Your task to perform on an android device: Open Google Image 0: 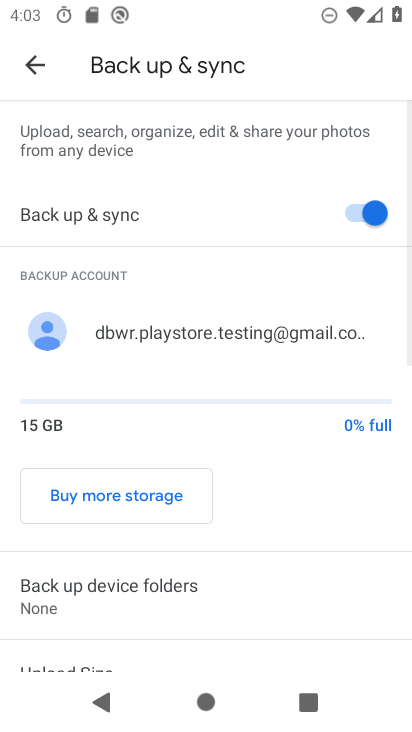
Step 0: press home button
Your task to perform on an android device: Open Google Image 1: 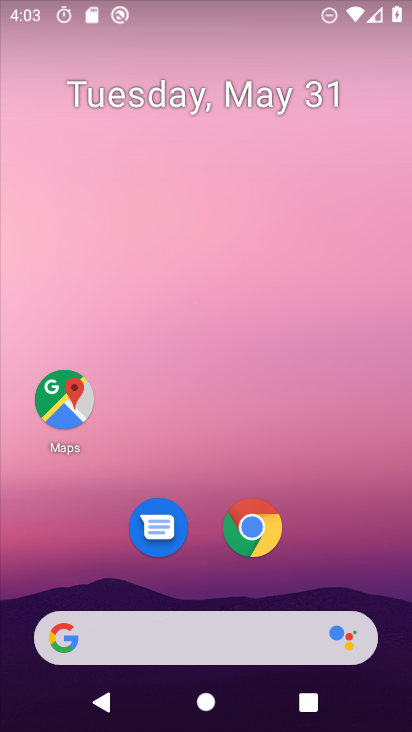
Step 1: click (204, 630)
Your task to perform on an android device: Open Google Image 2: 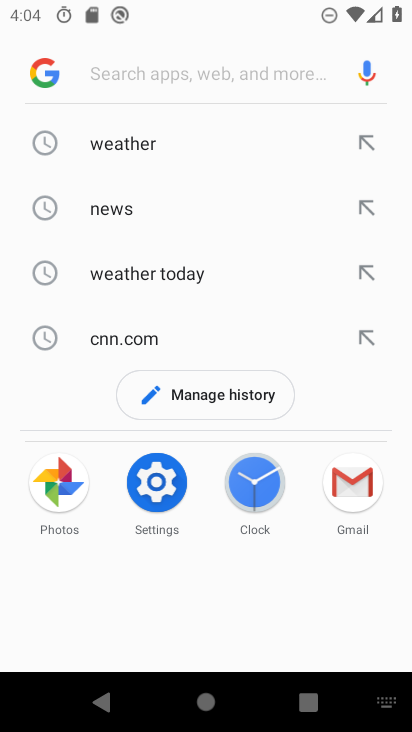
Step 2: task complete